Your task to perform on an android device: Show me popular videos on Youtube Image 0: 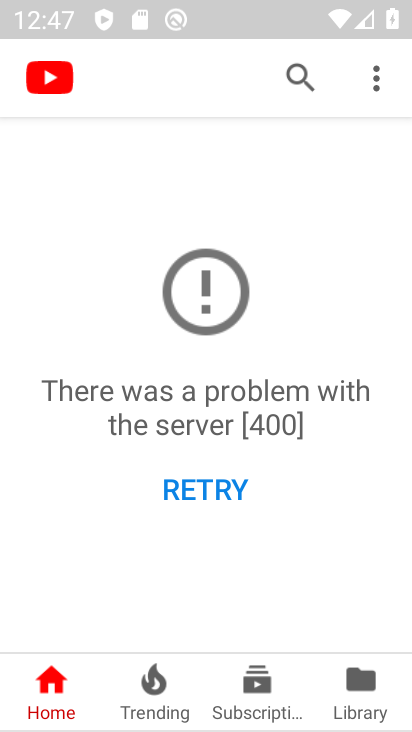
Step 0: press home button
Your task to perform on an android device: Show me popular videos on Youtube Image 1: 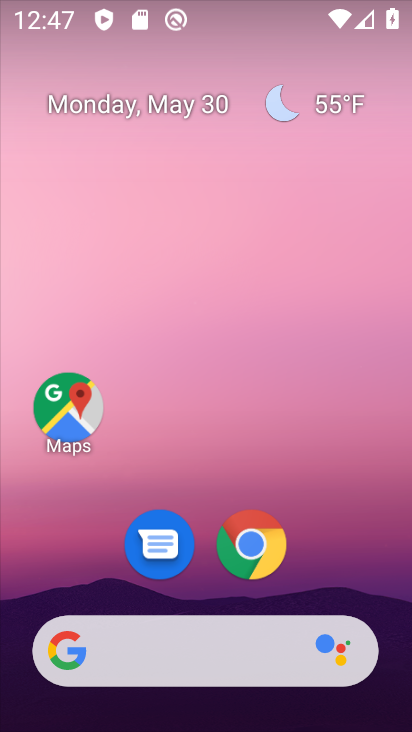
Step 1: drag from (357, 549) to (348, 20)
Your task to perform on an android device: Show me popular videos on Youtube Image 2: 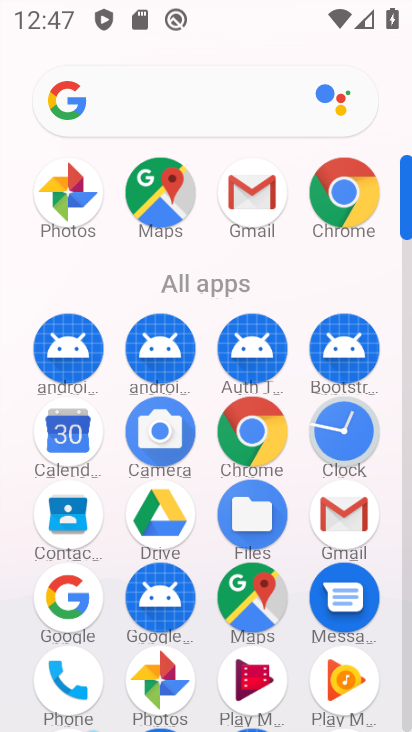
Step 2: drag from (276, 295) to (267, 57)
Your task to perform on an android device: Show me popular videos on Youtube Image 3: 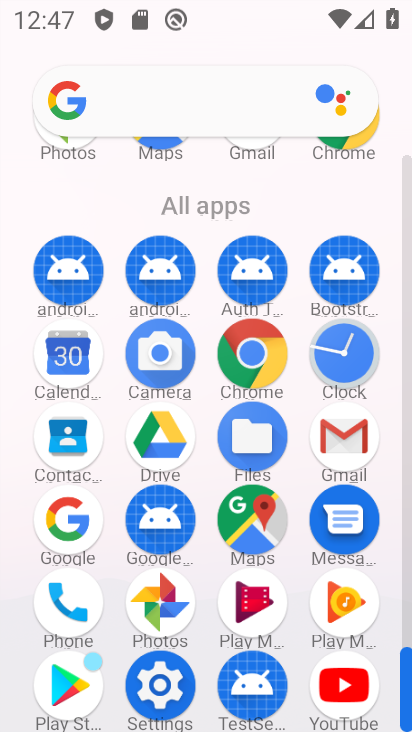
Step 3: click (337, 696)
Your task to perform on an android device: Show me popular videos on Youtube Image 4: 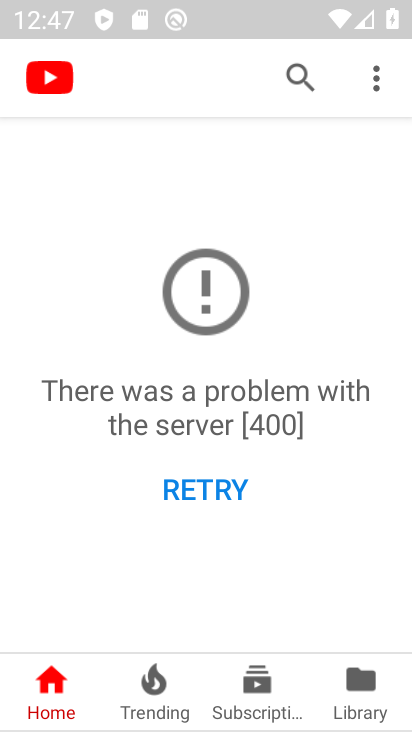
Step 4: click (186, 667)
Your task to perform on an android device: Show me popular videos on Youtube Image 5: 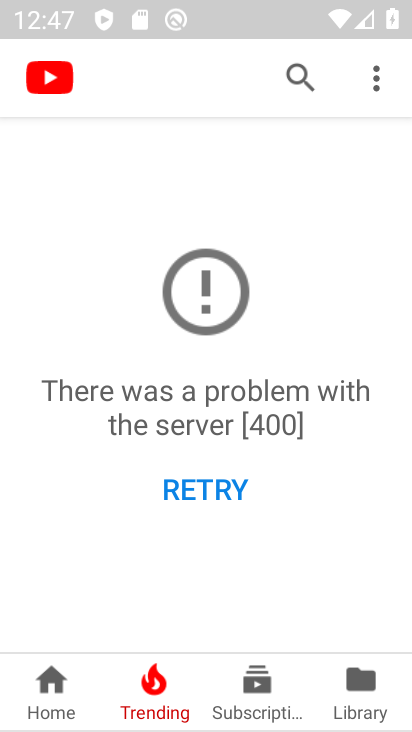
Step 5: task complete